Your task to perform on an android device: Open Google Chrome Image 0: 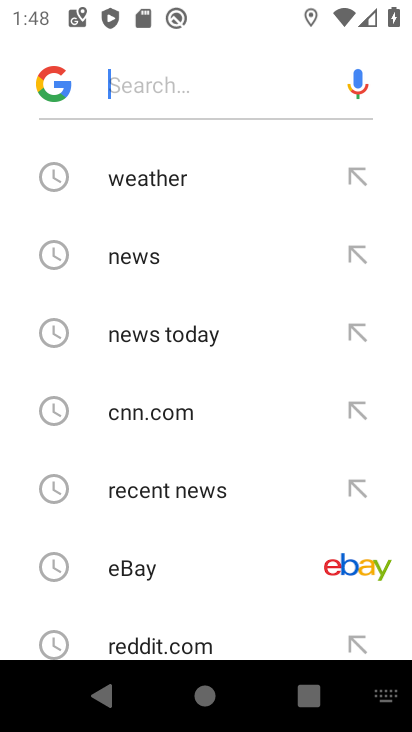
Step 0: click (47, 71)
Your task to perform on an android device: Open Google Chrome Image 1: 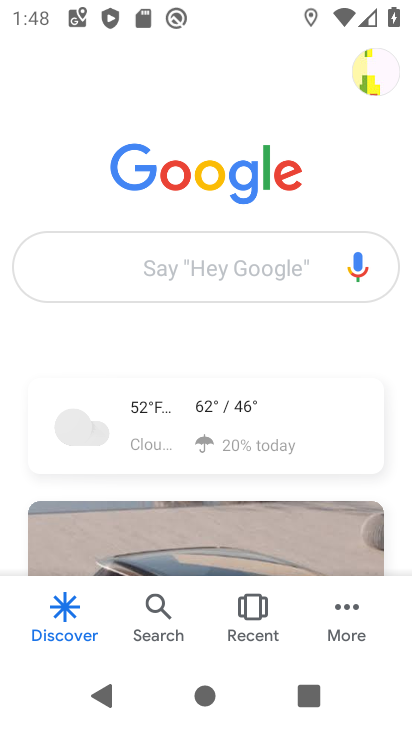
Step 1: press home button
Your task to perform on an android device: Open Google Chrome Image 2: 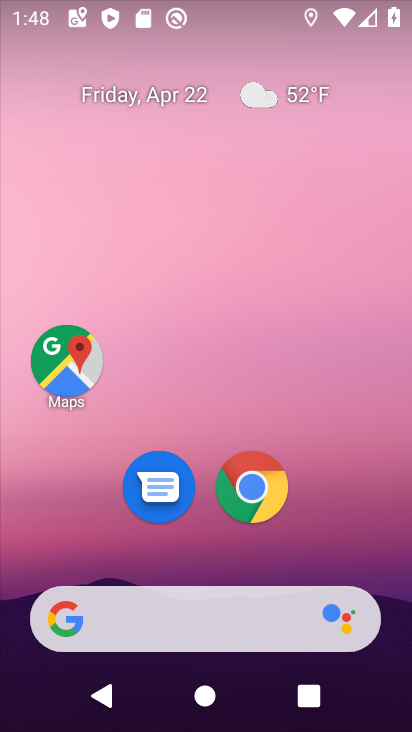
Step 2: click (242, 473)
Your task to perform on an android device: Open Google Chrome Image 3: 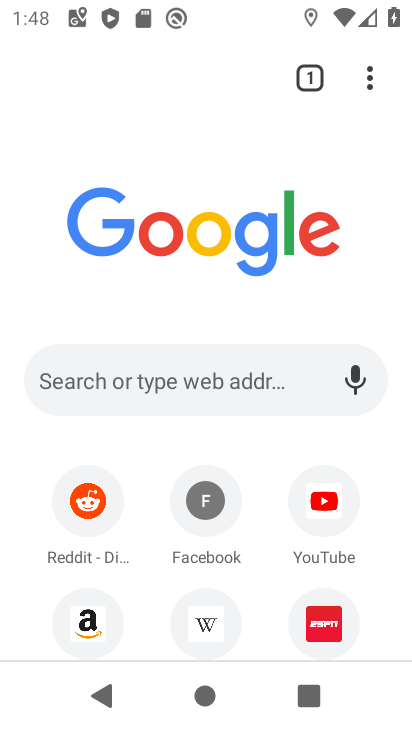
Step 3: task complete